Your task to perform on an android device: turn off airplane mode Image 0: 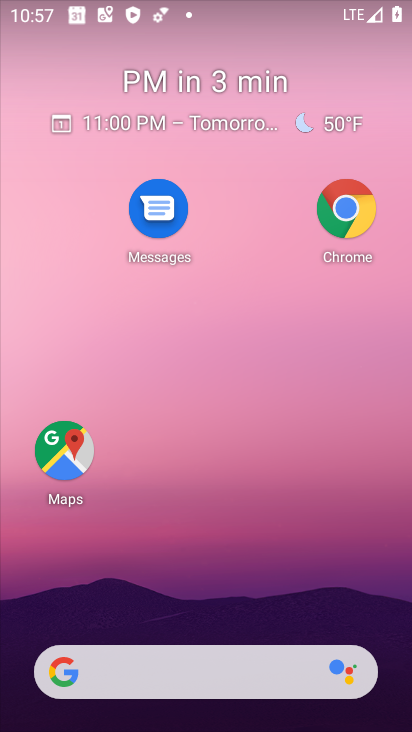
Step 0: drag from (213, 632) to (221, 5)
Your task to perform on an android device: turn off airplane mode Image 1: 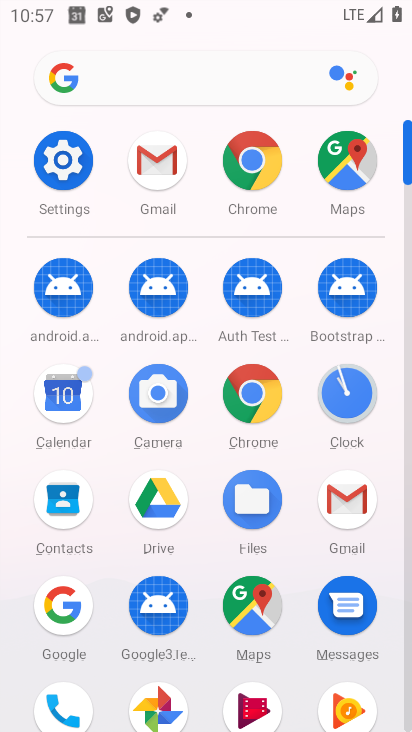
Step 1: click (62, 161)
Your task to perform on an android device: turn off airplane mode Image 2: 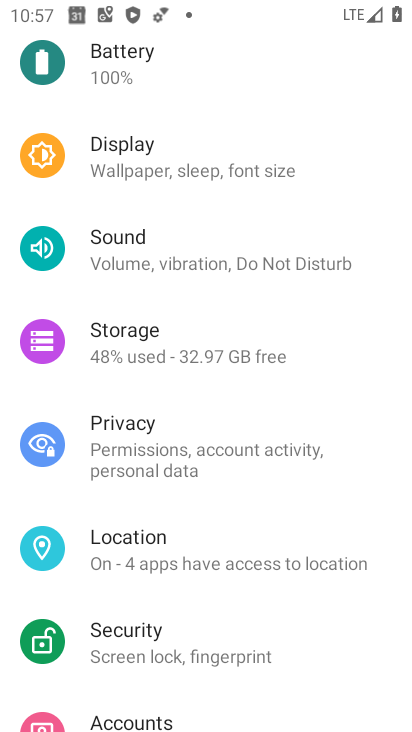
Step 2: drag from (115, 164) to (114, 725)
Your task to perform on an android device: turn off airplane mode Image 3: 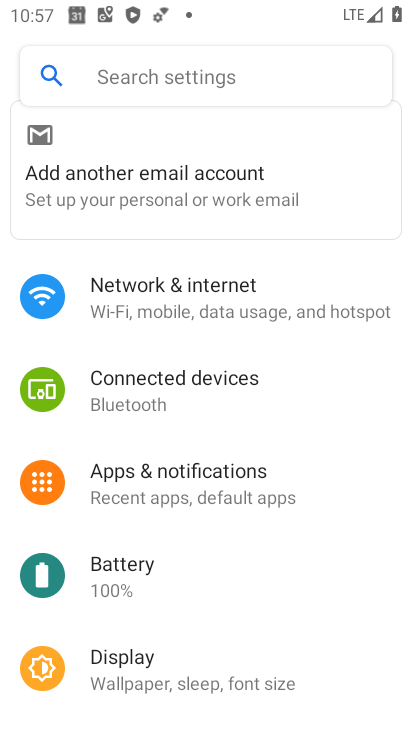
Step 3: click (199, 291)
Your task to perform on an android device: turn off airplane mode Image 4: 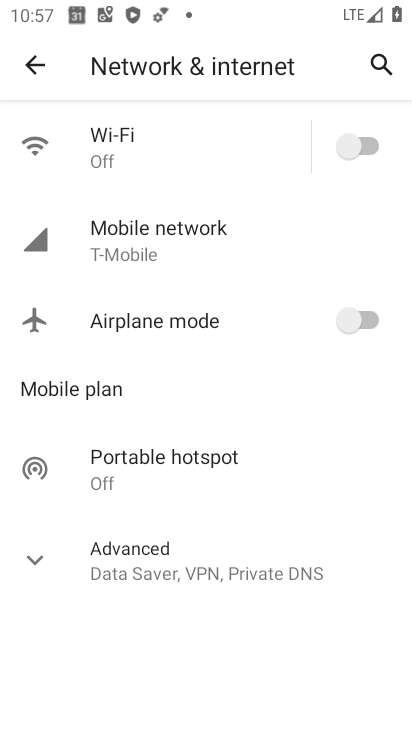
Step 4: task complete